Your task to perform on an android device: check the backup settings in the google photos Image 0: 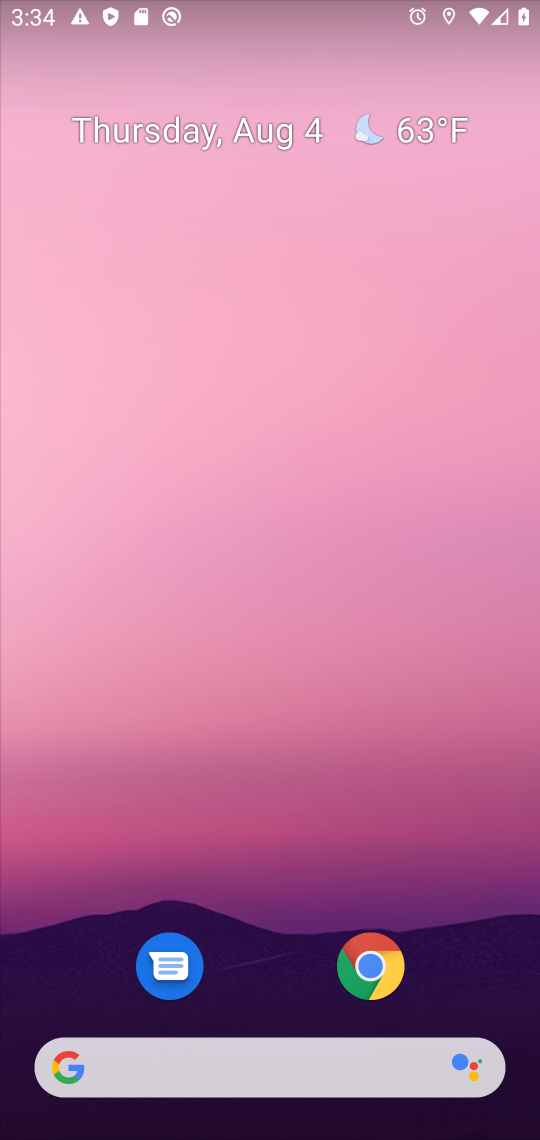
Step 0: press home button
Your task to perform on an android device: check the backup settings in the google photos Image 1: 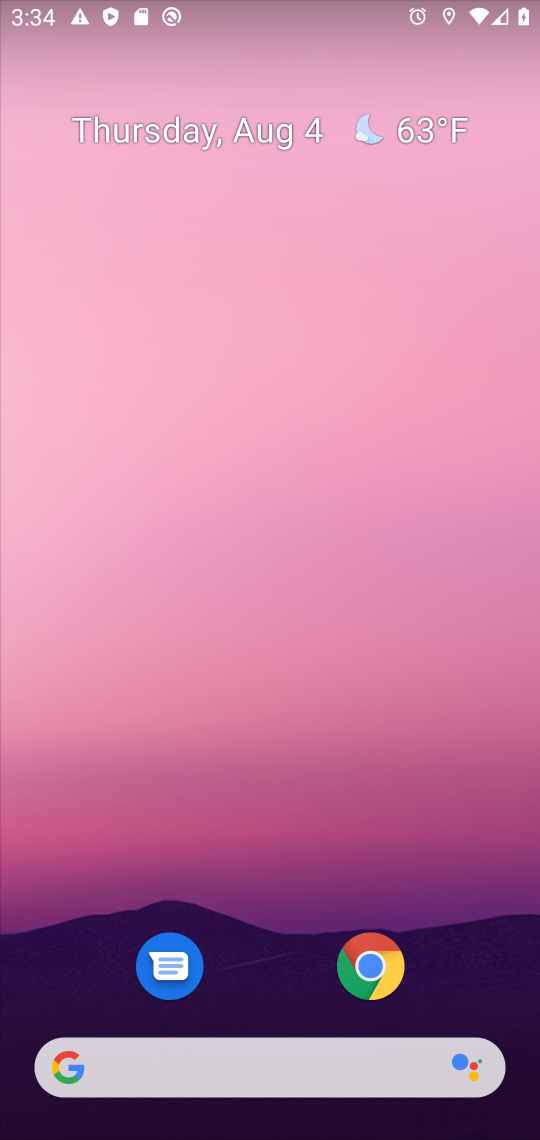
Step 1: drag from (269, 1015) to (222, 237)
Your task to perform on an android device: check the backup settings in the google photos Image 2: 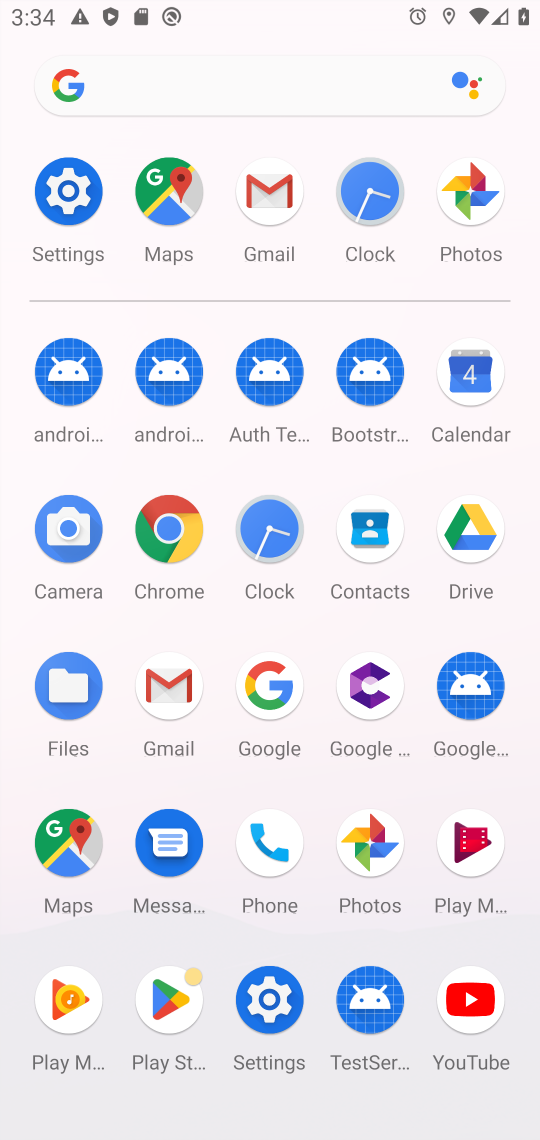
Step 2: click (467, 196)
Your task to perform on an android device: check the backup settings in the google photos Image 3: 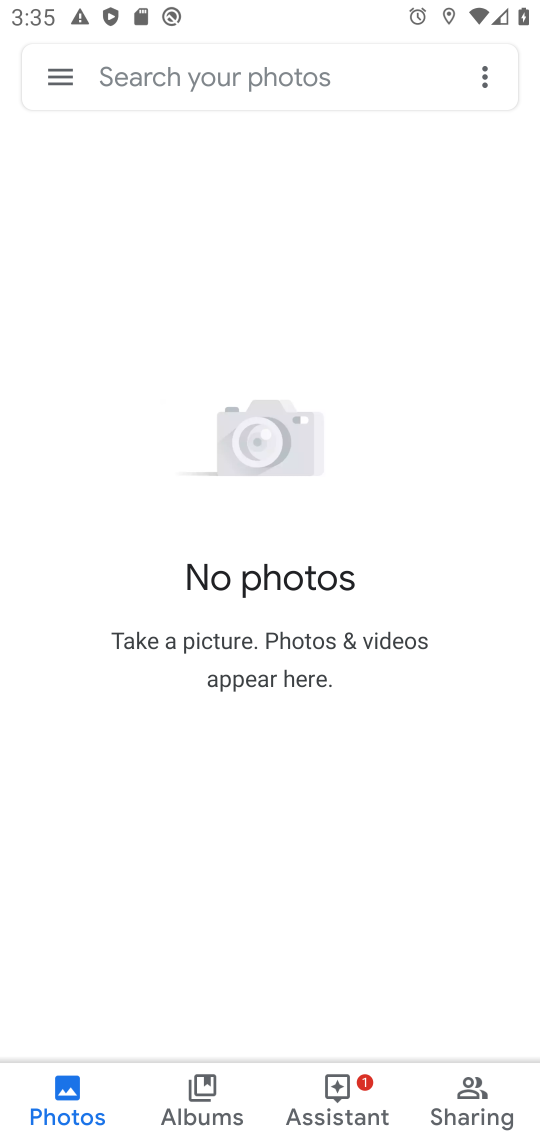
Step 3: click (49, 77)
Your task to perform on an android device: check the backup settings in the google photos Image 4: 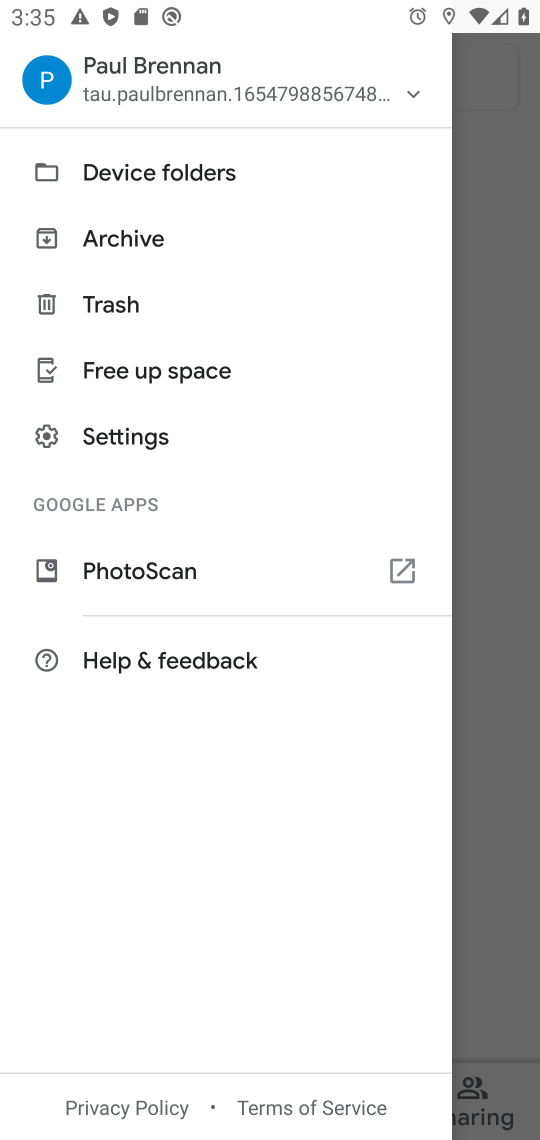
Step 4: click (133, 436)
Your task to perform on an android device: check the backup settings in the google photos Image 5: 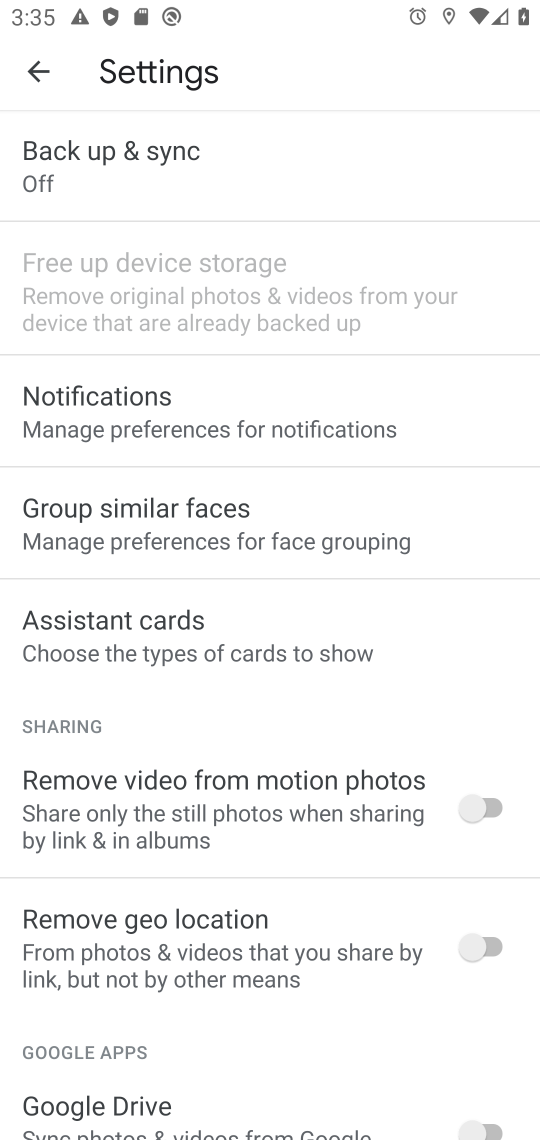
Step 5: click (97, 159)
Your task to perform on an android device: check the backup settings in the google photos Image 6: 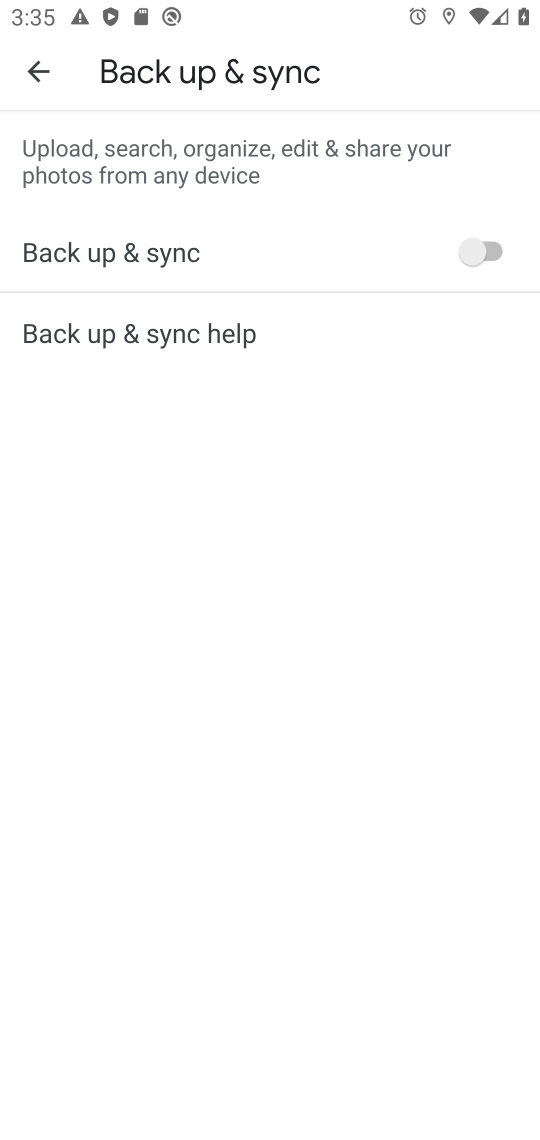
Step 6: click (120, 260)
Your task to perform on an android device: check the backup settings in the google photos Image 7: 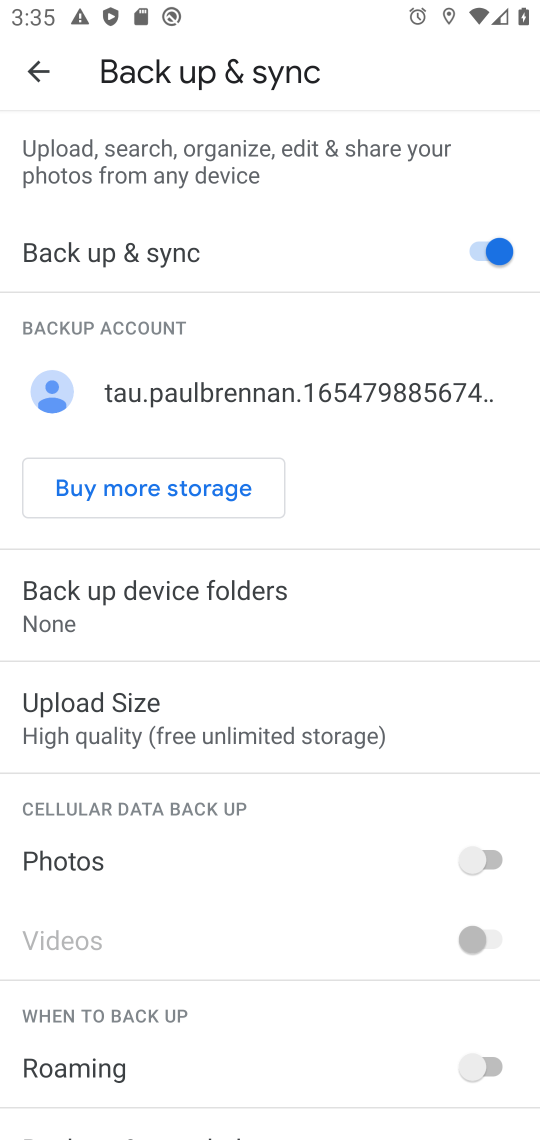
Step 7: task complete